Your task to perform on an android device: Open Google Maps and go to "Timeline" Image 0: 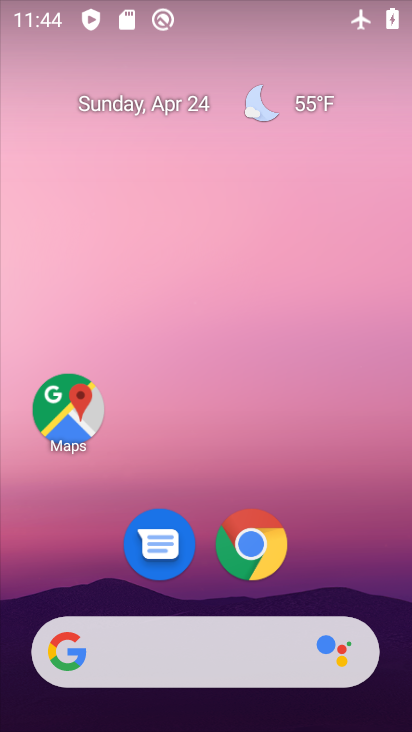
Step 0: click (76, 404)
Your task to perform on an android device: Open Google Maps and go to "Timeline" Image 1: 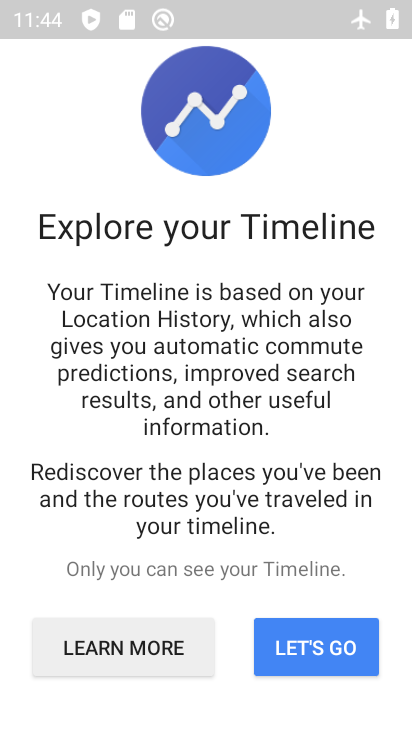
Step 1: task complete